Your task to perform on an android device: open a new tab in the chrome app Image 0: 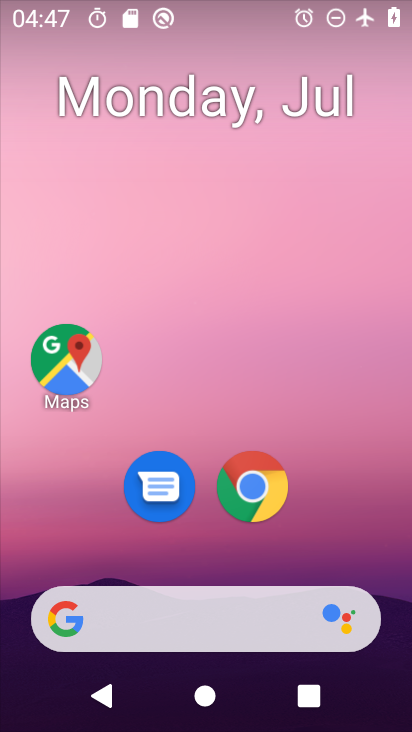
Step 0: click (247, 470)
Your task to perform on an android device: open a new tab in the chrome app Image 1: 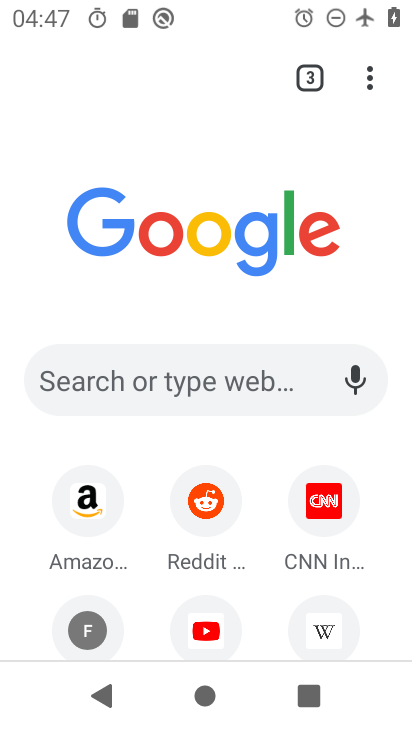
Step 1: click (300, 77)
Your task to perform on an android device: open a new tab in the chrome app Image 2: 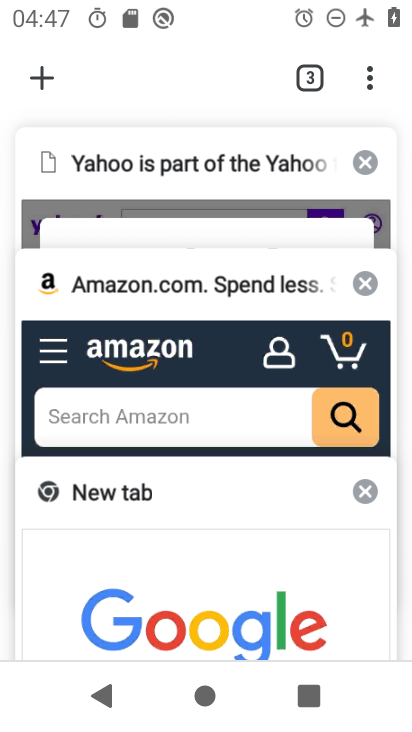
Step 2: click (32, 66)
Your task to perform on an android device: open a new tab in the chrome app Image 3: 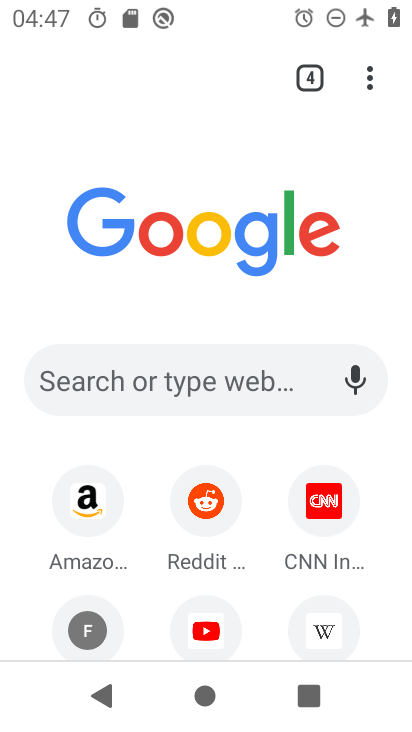
Step 3: task complete